Your task to perform on an android device: What is the recent news? Image 0: 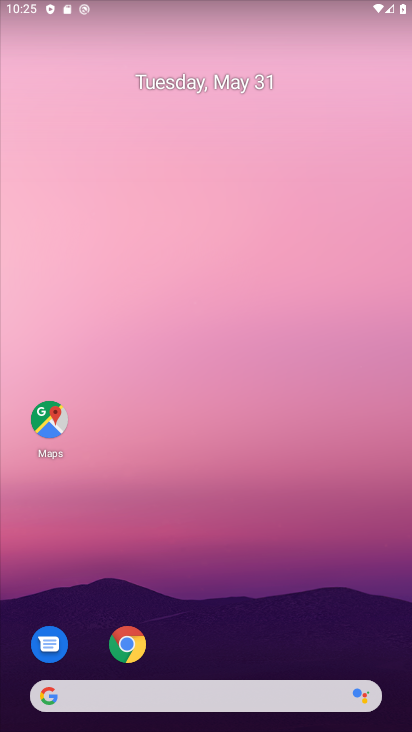
Step 0: click (120, 642)
Your task to perform on an android device: What is the recent news? Image 1: 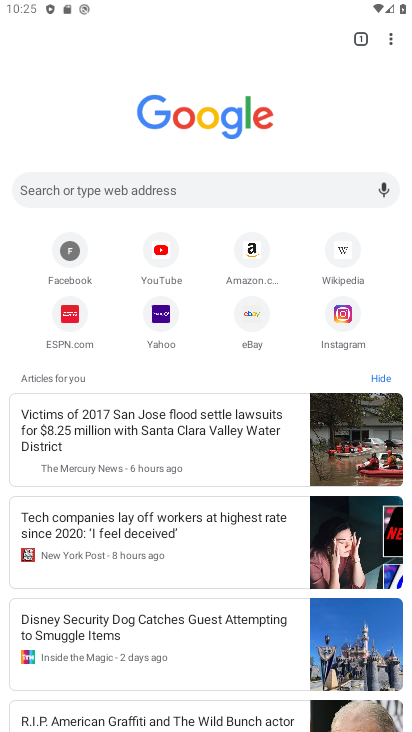
Step 1: click (96, 194)
Your task to perform on an android device: What is the recent news? Image 2: 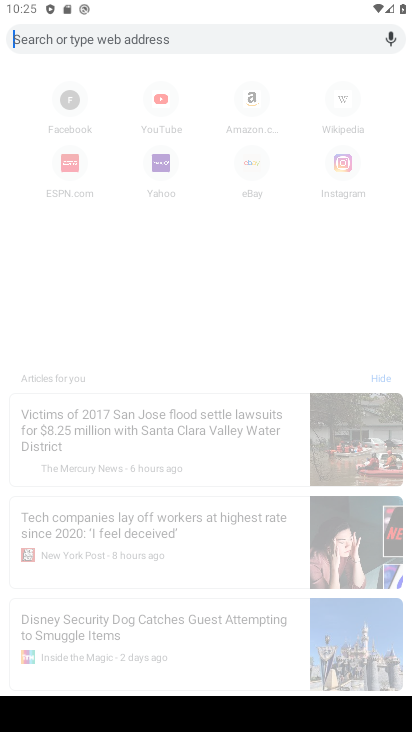
Step 2: type "recent news"
Your task to perform on an android device: What is the recent news? Image 3: 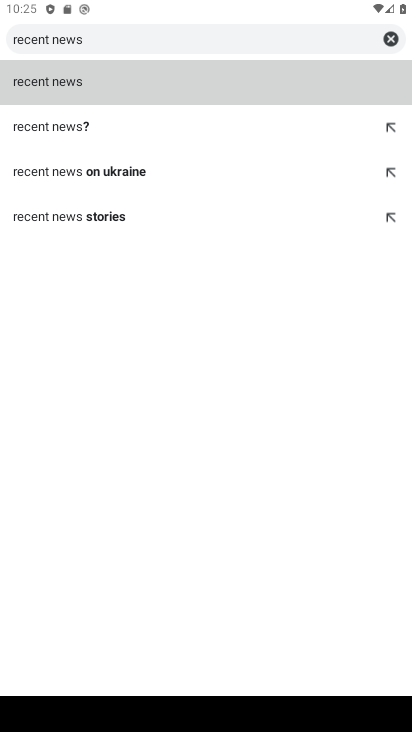
Step 3: click (103, 76)
Your task to perform on an android device: What is the recent news? Image 4: 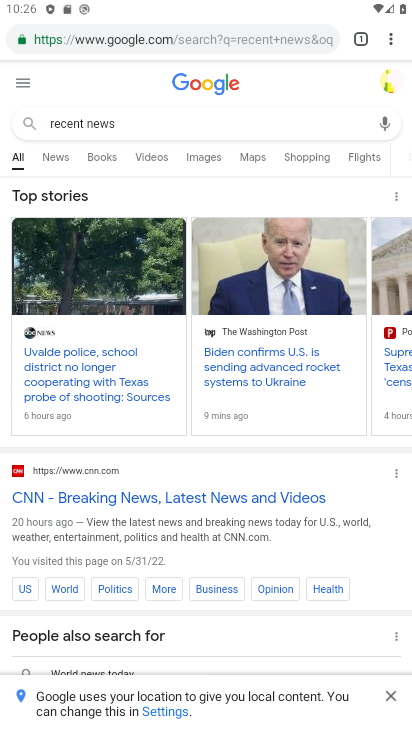
Step 4: task complete